Your task to perform on an android device: Do I have any events this weekend? Image 0: 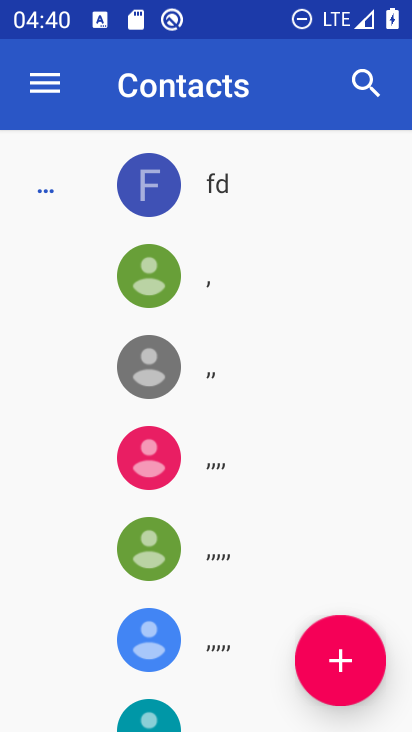
Step 0: press home button
Your task to perform on an android device: Do I have any events this weekend? Image 1: 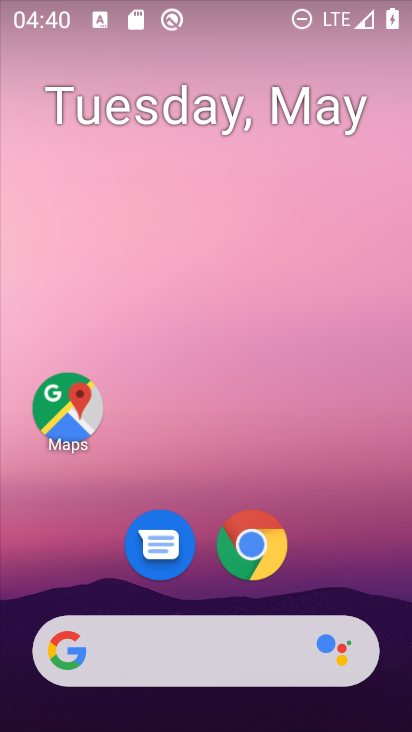
Step 1: drag from (385, 599) to (333, 127)
Your task to perform on an android device: Do I have any events this weekend? Image 2: 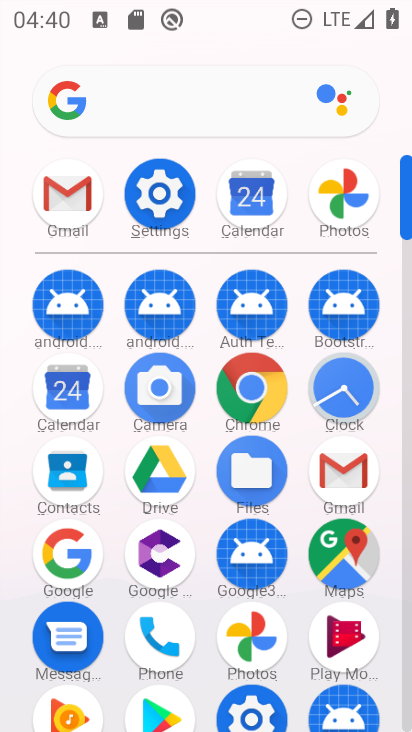
Step 2: click (405, 643)
Your task to perform on an android device: Do I have any events this weekend? Image 3: 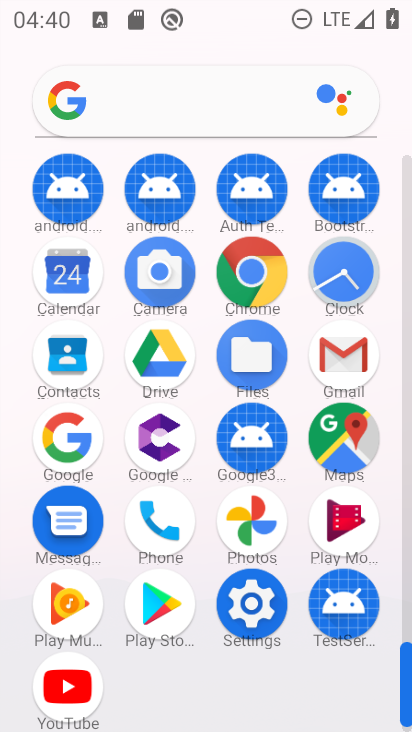
Step 3: click (70, 267)
Your task to perform on an android device: Do I have any events this weekend? Image 4: 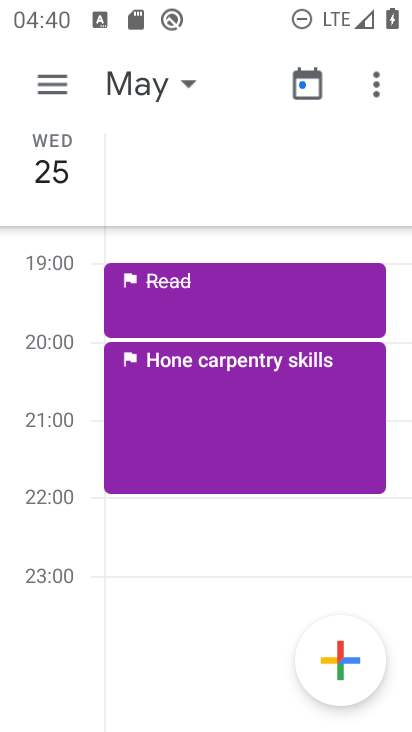
Step 4: click (51, 85)
Your task to perform on an android device: Do I have any events this weekend? Image 5: 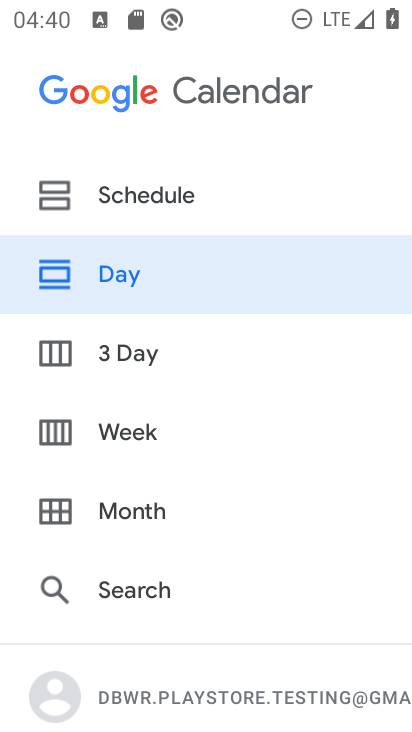
Step 5: click (133, 435)
Your task to perform on an android device: Do I have any events this weekend? Image 6: 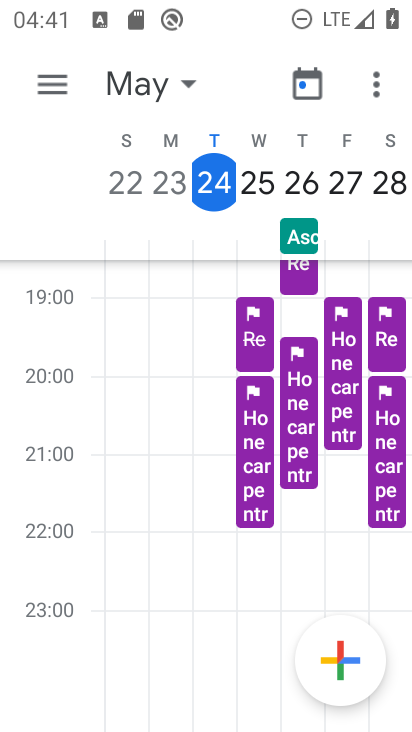
Step 6: task complete